Your task to perform on an android device: open a bookmark in the chrome app Image 0: 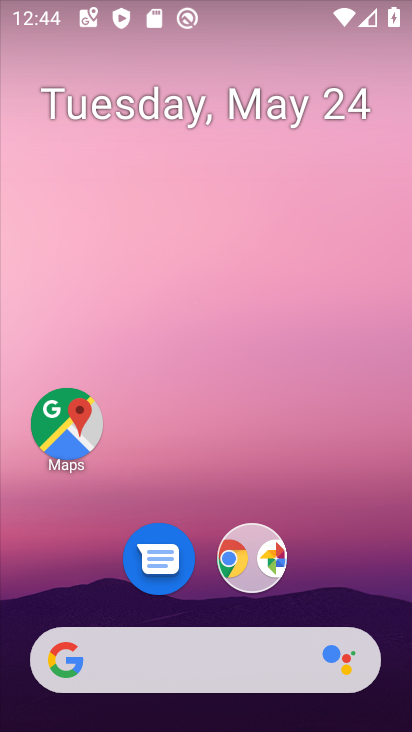
Step 0: drag from (311, 666) to (178, 152)
Your task to perform on an android device: open a bookmark in the chrome app Image 1: 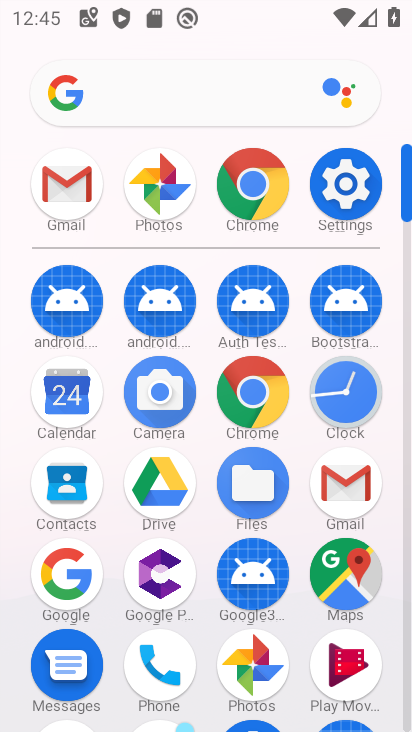
Step 1: click (245, 190)
Your task to perform on an android device: open a bookmark in the chrome app Image 2: 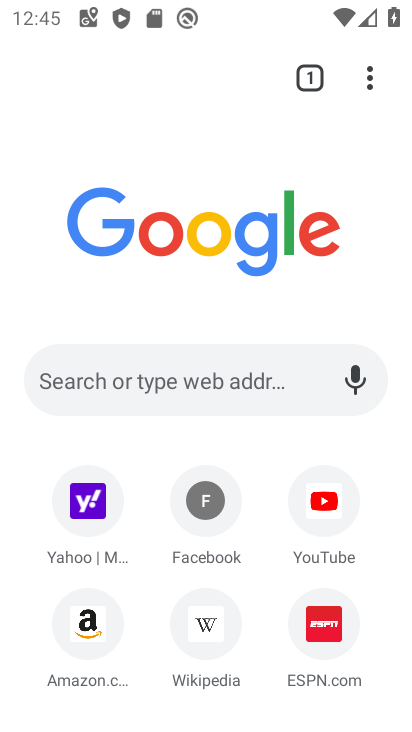
Step 2: drag from (366, 88) to (83, 301)
Your task to perform on an android device: open a bookmark in the chrome app Image 3: 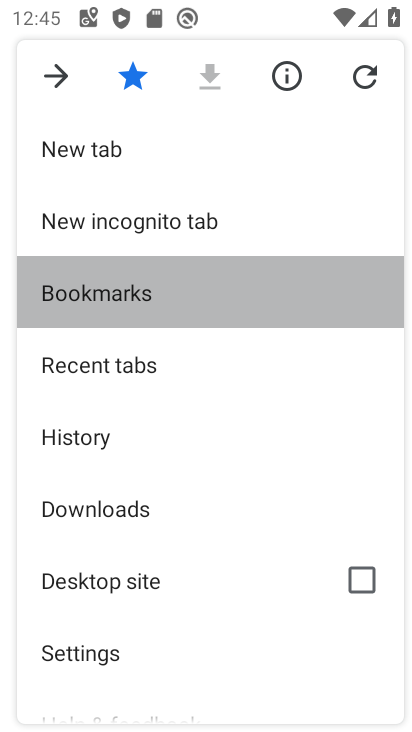
Step 3: click (87, 298)
Your task to perform on an android device: open a bookmark in the chrome app Image 4: 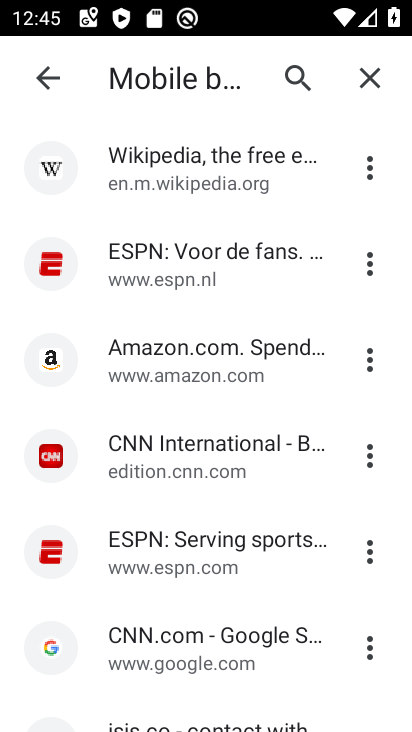
Step 4: task complete